Your task to perform on an android device: open device folders in google photos Image 0: 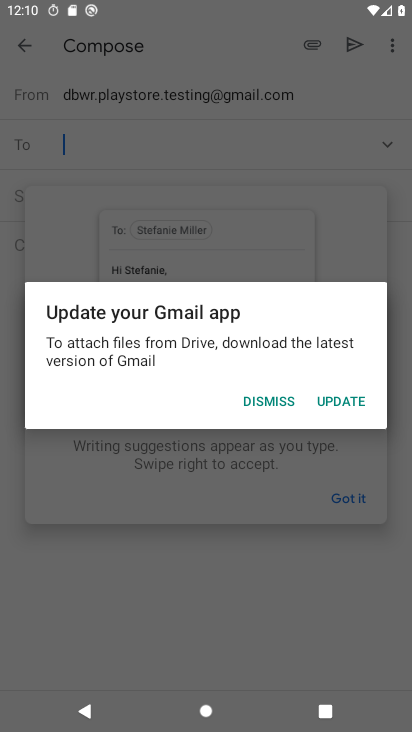
Step 0: press home button
Your task to perform on an android device: open device folders in google photos Image 1: 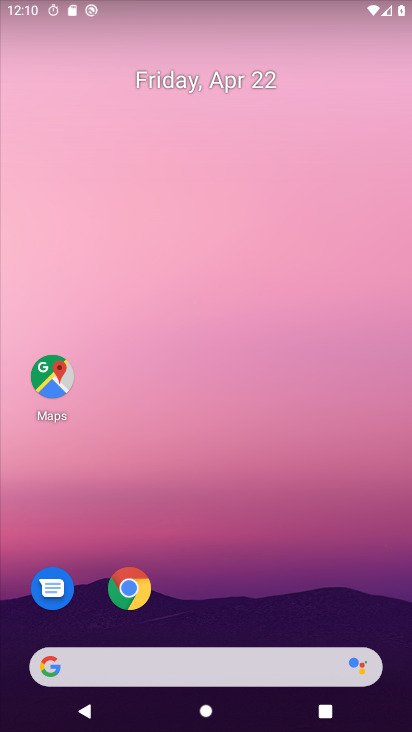
Step 1: drag from (293, 615) to (274, 183)
Your task to perform on an android device: open device folders in google photos Image 2: 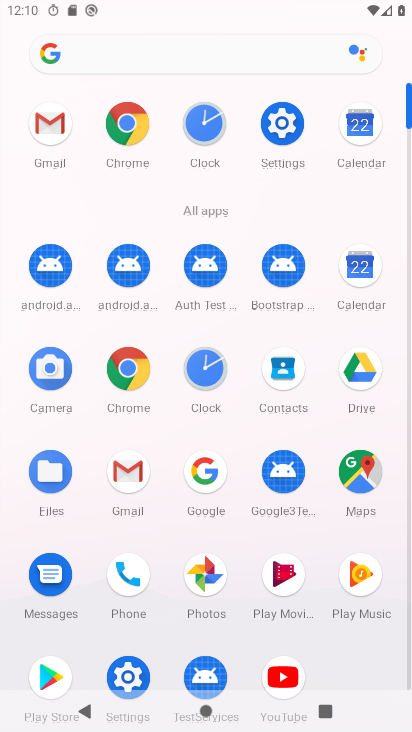
Step 2: click (208, 577)
Your task to perform on an android device: open device folders in google photos Image 3: 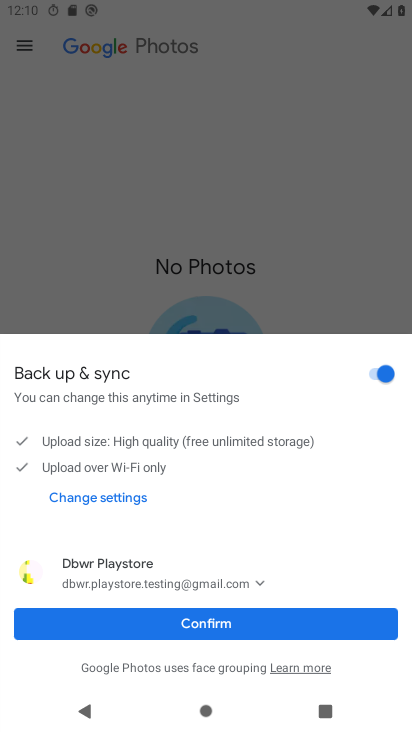
Step 3: click (218, 636)
Your task to perform on an android device: open device folders in google photos Image 4: 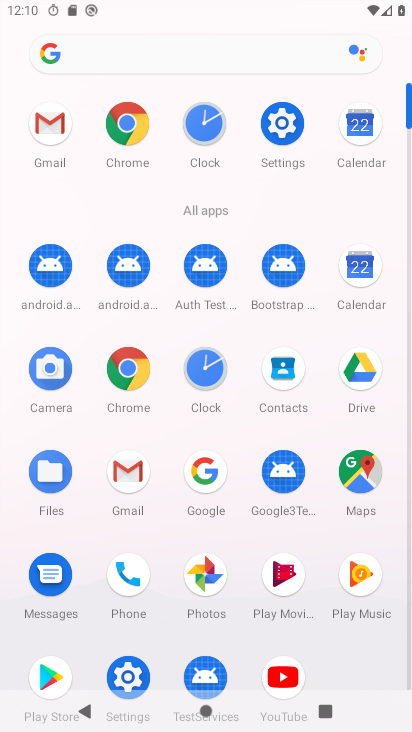
Step 4: click (209, 586)
Your task to perform on an android device: open device folders in google photos Image 5: 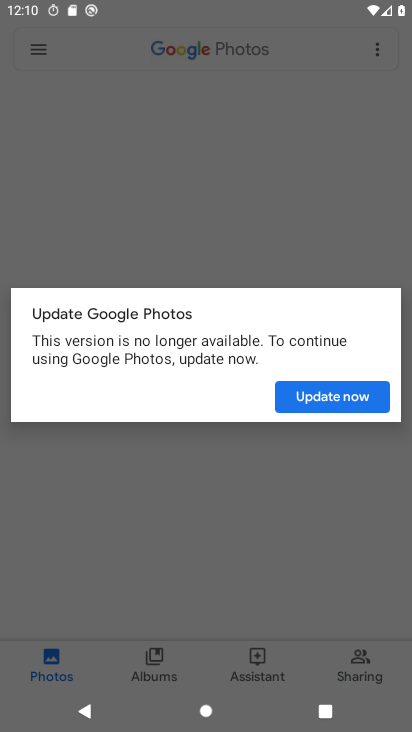
Step 5: click (333, 393)
Your task to perform on an android device: open device folders in google photos Image 6: 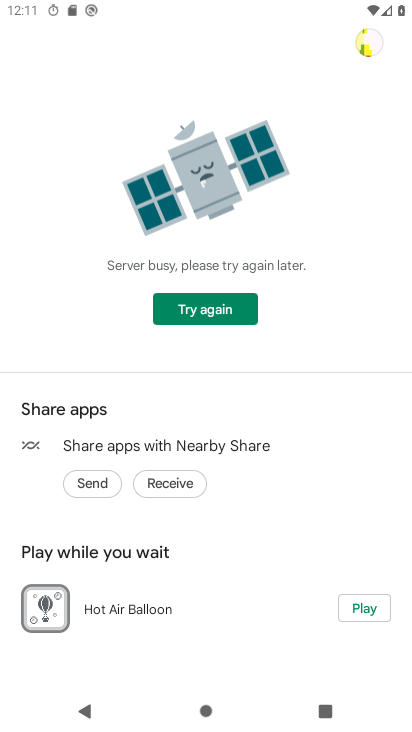
Step 6: click (218, 306)
Your task to perform on an android device: open device folders in google photos Image 7: 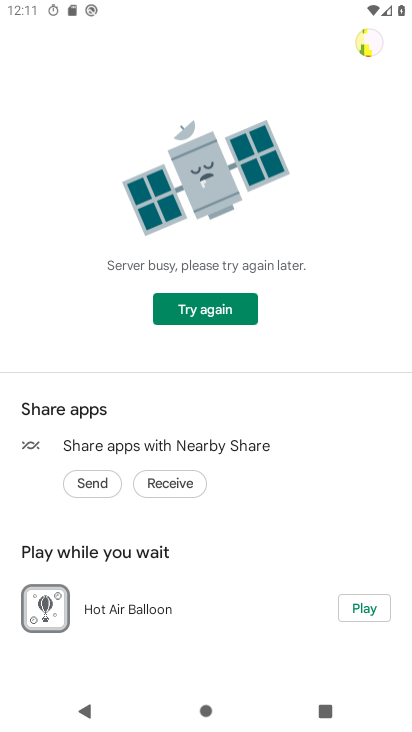
Step 7: click (218, 306)
Your task to perform on an android device: open device folders in google photos Image 8: 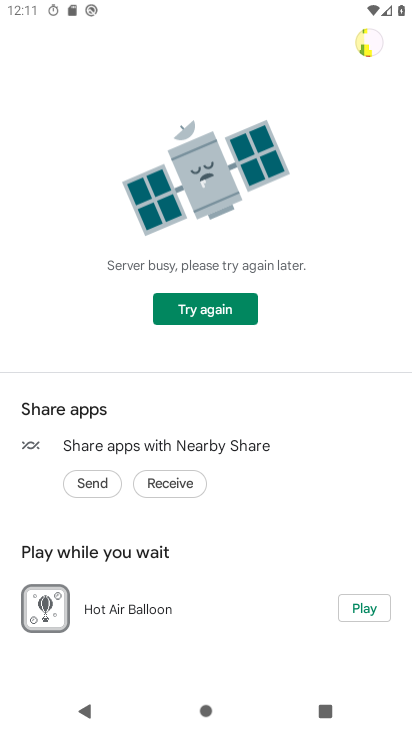
Step 8: click (223, 311)
Your task to perform on an android device: open device folders in google photos Image 9: 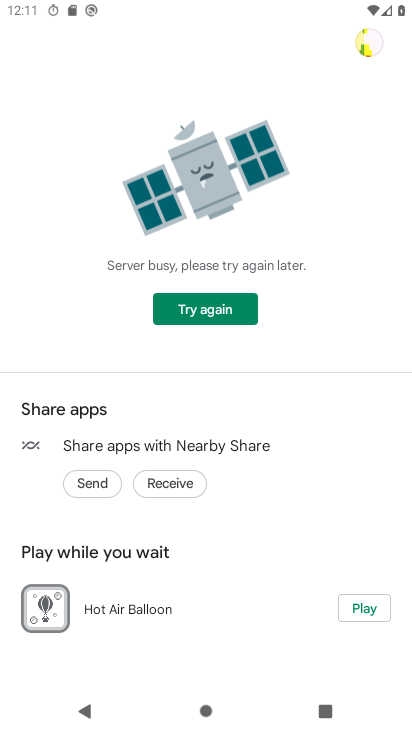
Step 9: click (224, 308)
Your task to perform on an android device: open device folders in google photos Image 10: 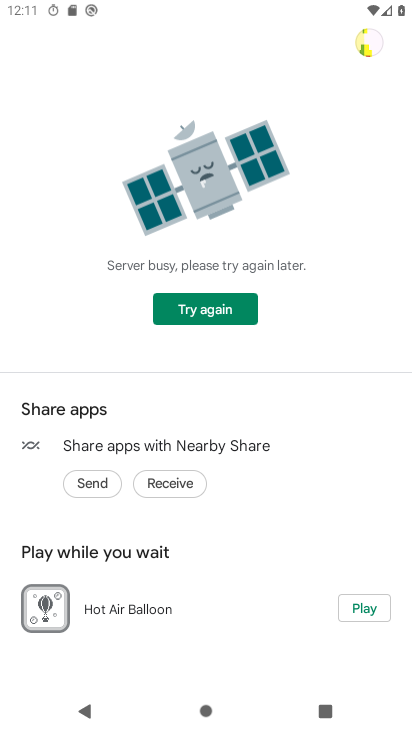
Step 10: click (224, 308)
Your task to perform on an android device: open device folders in google photos Image 11: 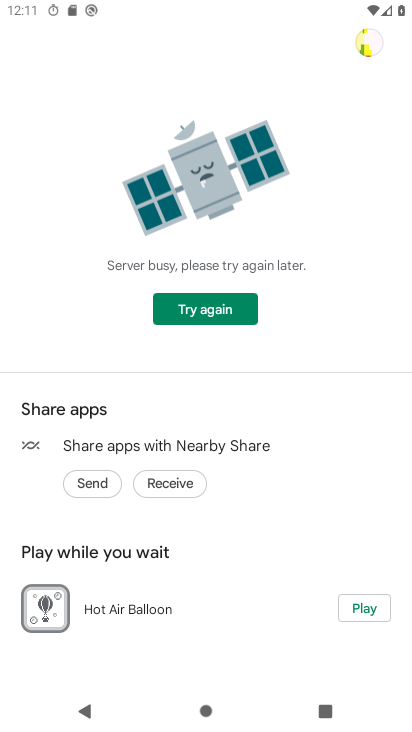
Step 11: click (224, 306)
Your task to perform on an android device: open device folders in google photos Image 12: 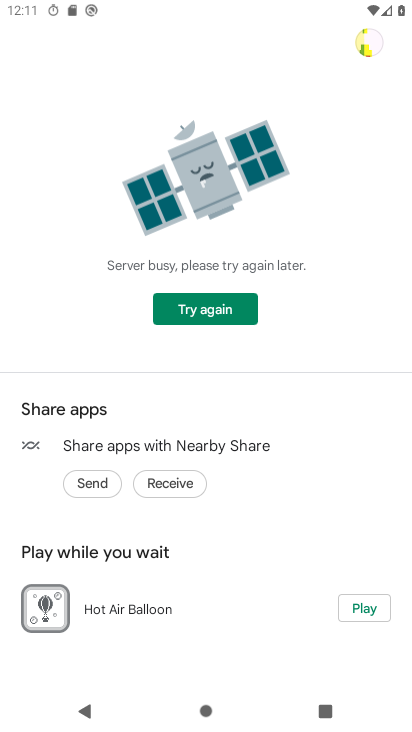
Step 12: task complete